Your task to perform on an android device: all mails in gmail Image 0: 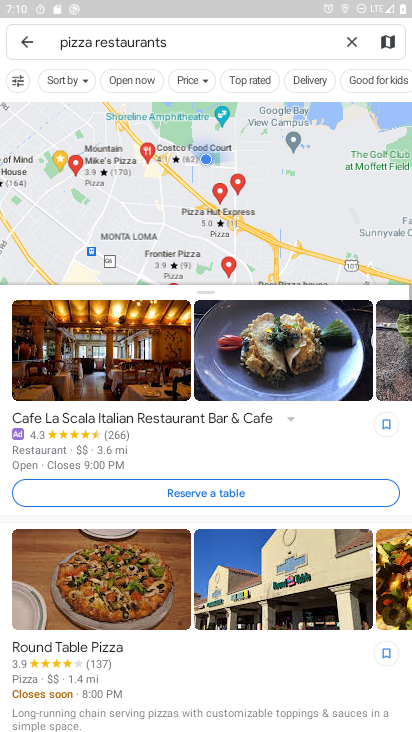
Step 0: press home button
Your task to perform on an android device: all mails in gmail Image 1: 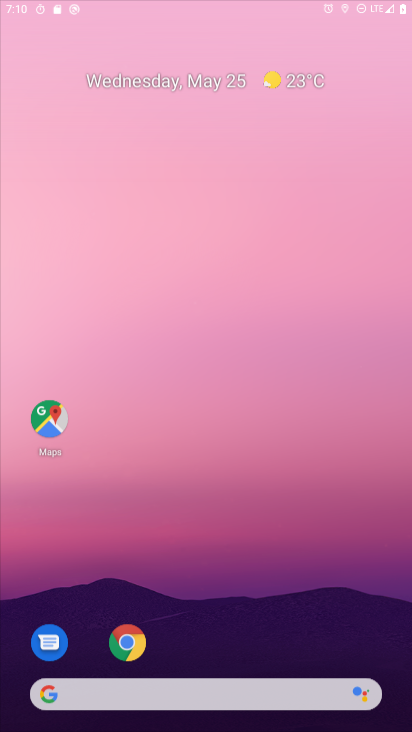
Step 1: drag from (307, 656) to (261, 69)
Your task to perform on an android device: all mails in gmail Image 2: 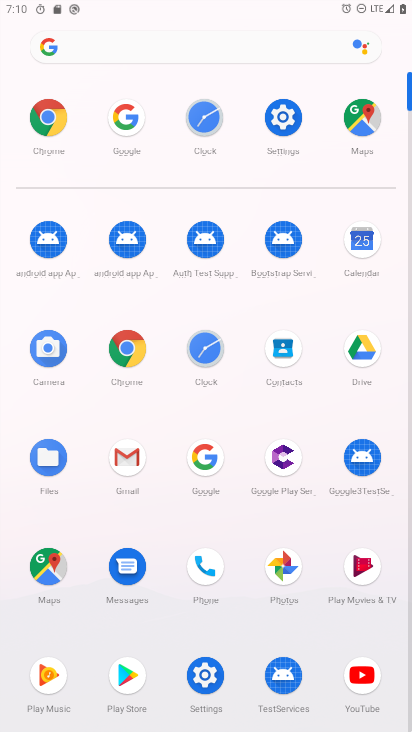
Step 2: click (121, 463)
Your task to perform on an android device: all mails in gmail Image 3: 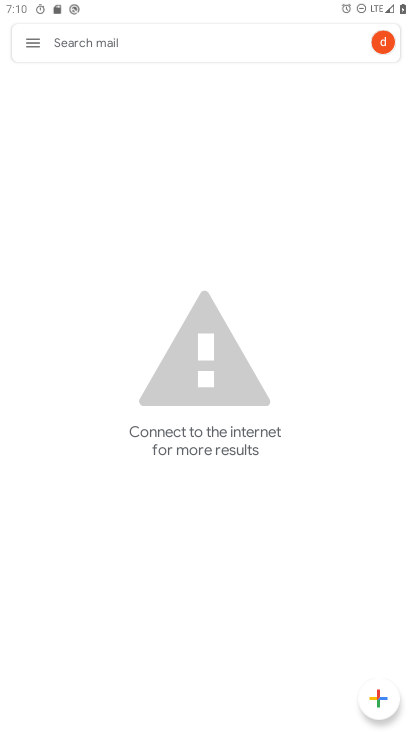
Step 3: click (22, 57)
Your task to perform on an android device: all mails in gmail Image 4: 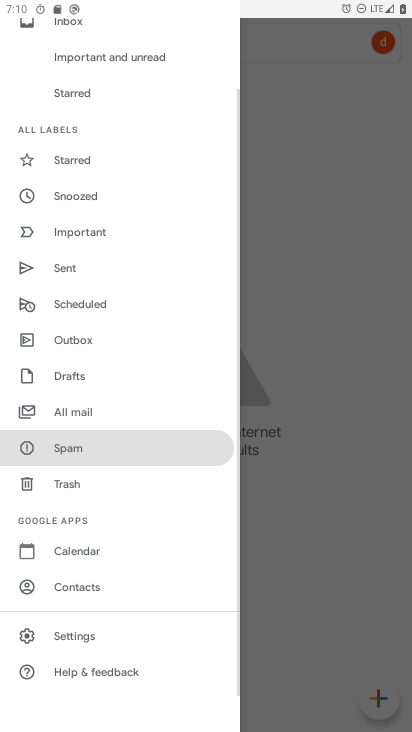
Step 4: click (88, 411)
Your task to perform on an android device: all mails in gmail Image 5: 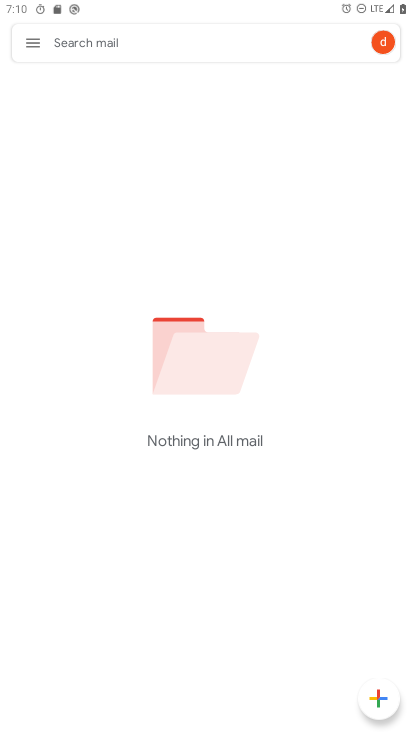
Step 5: task complete